Your task to perform on an android device: Open the calendar app, open the side menu, and click the "Day" option Image 0: 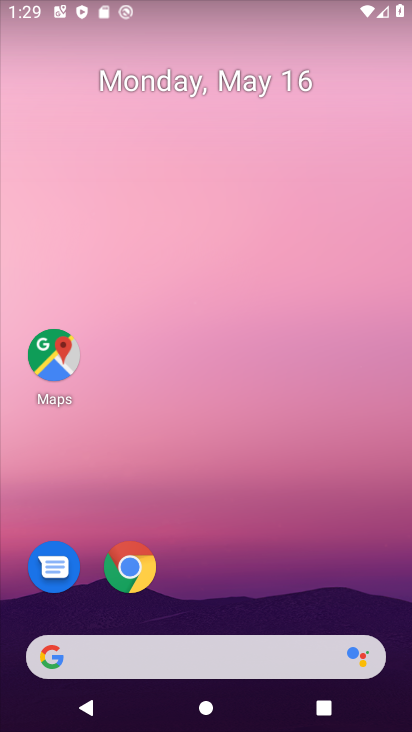
Step 0: drag from (216, 597) to (161, 353)
Your task to perform on an android device: Open the calendar app, open the side menu, and click the "Day" option Image 1: 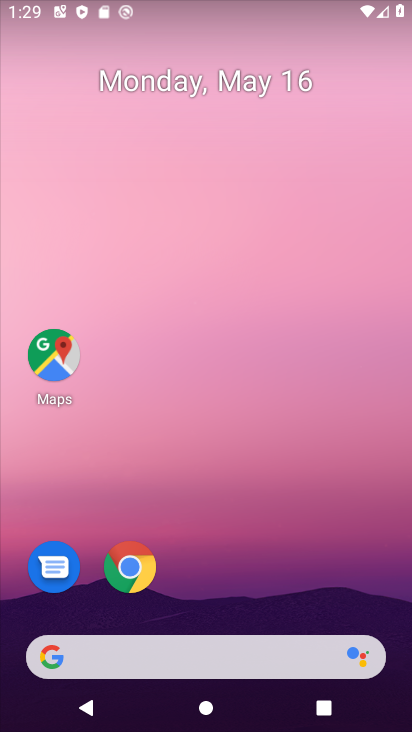
Step 1: drag from (255, 596) to (230, 231)
Your task to perform on an android device: Open the calendar app, open the side menu, and click the "Day" option Image 2: 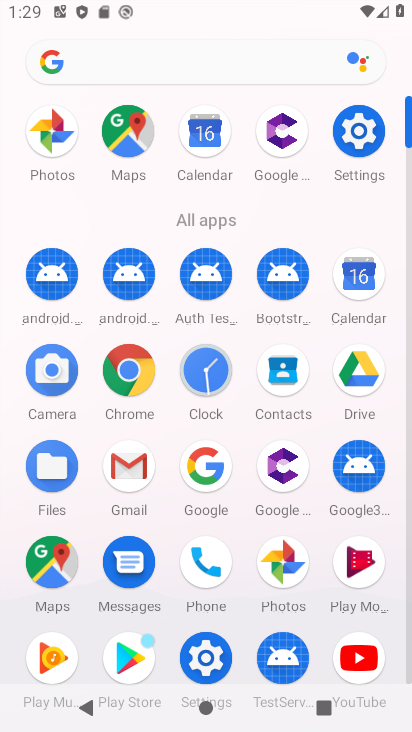
Step 2: click (351, 289)
Your task to perform on an android device: Open the calendar app, open the side menu, and click the "Day" option Image 3: 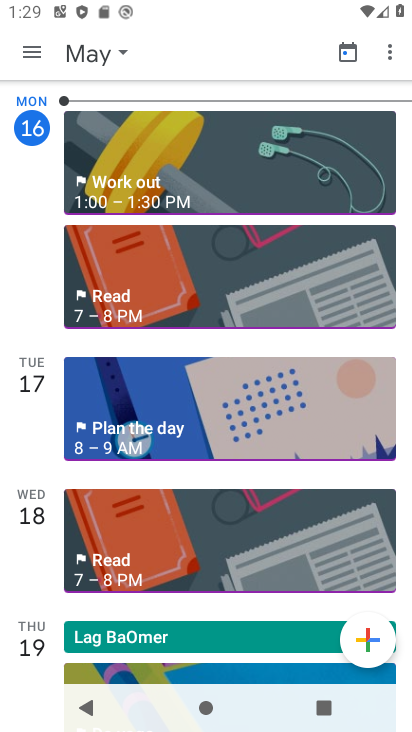
Step 3: click (35, 56)
Your task to perform on an android device: Open the calendar app, open the side menu, and click the "Day" option Image 4: 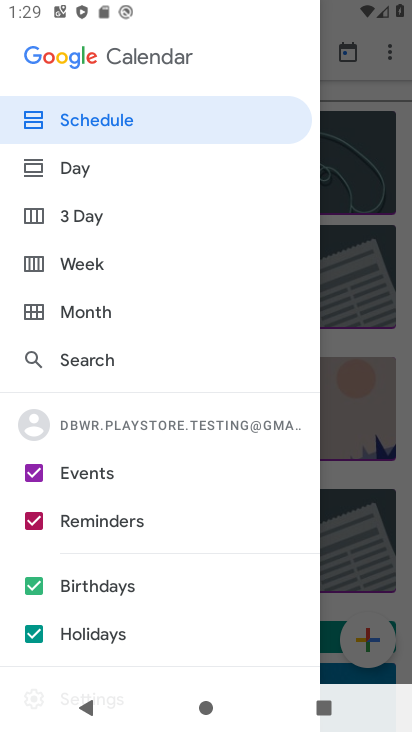
Step 4: click (92, 176)
Your task to perform on an android device: Open the calendar app, open the side menu, and click the "Day" option Image 5: 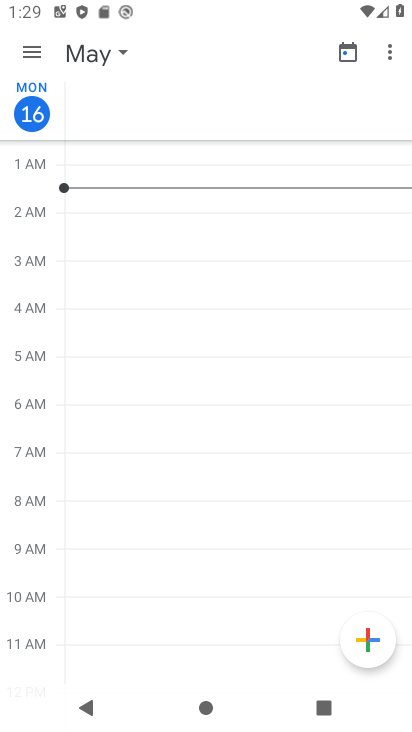
Step 5: task complete